Your task to perform on an android device: toggle wifi Image 0: 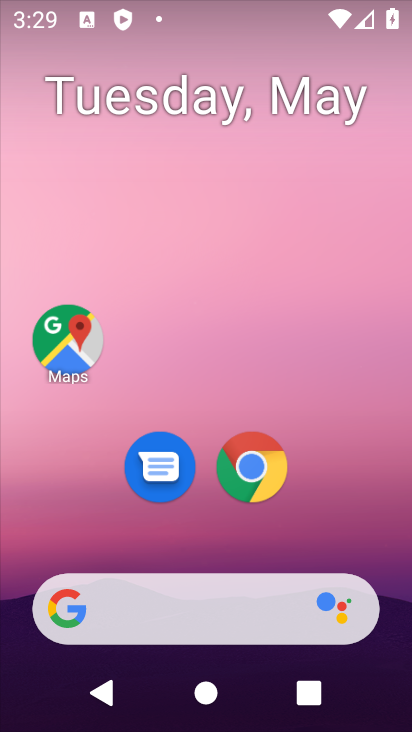
Step 0: task complete